Your task to perform on an android device: Go to Yahoo.com Image 0: 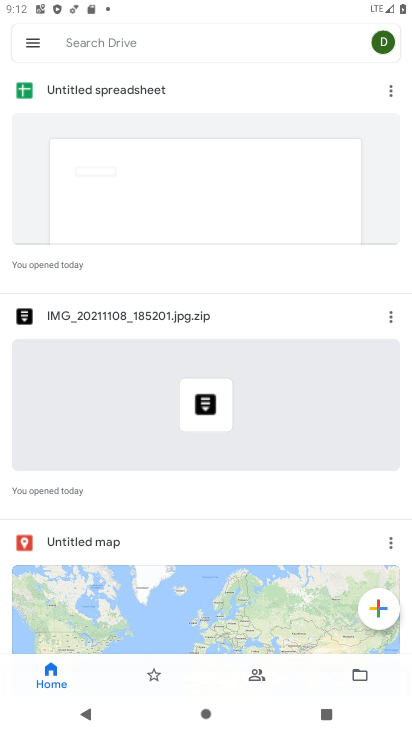
Step 0: press home button
Your task to perform on an android device: Go to Yahoo.com Image 1: 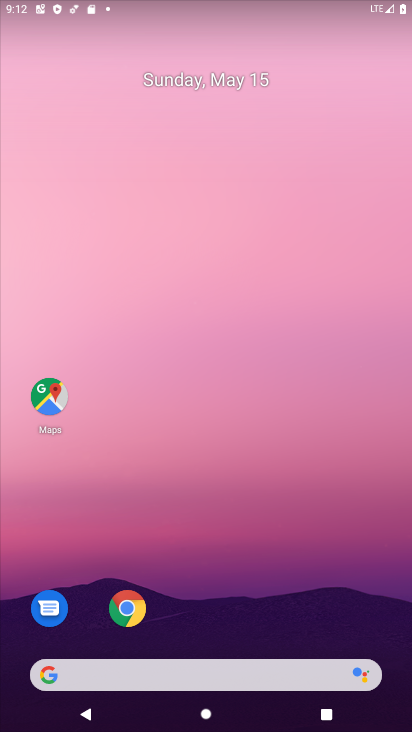
Step 1: drag from (221, 555) to (254, 50)
Your task to perform on an android device: Go to Yahoo.com Image 2: 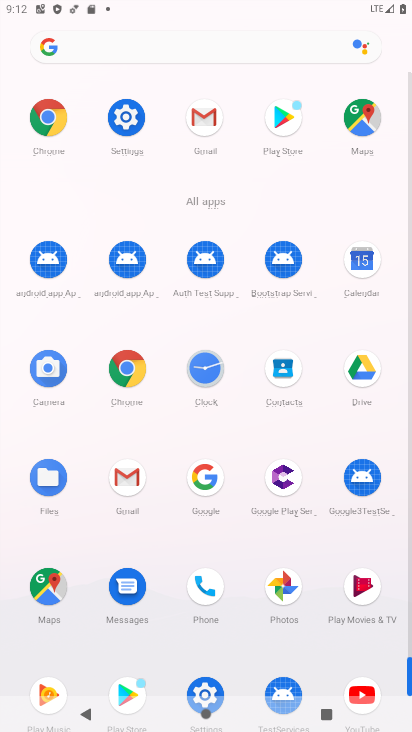
Step 2: click (53, 111)
Your task to perform on an android device: Go to Yahoo.com Image 3: 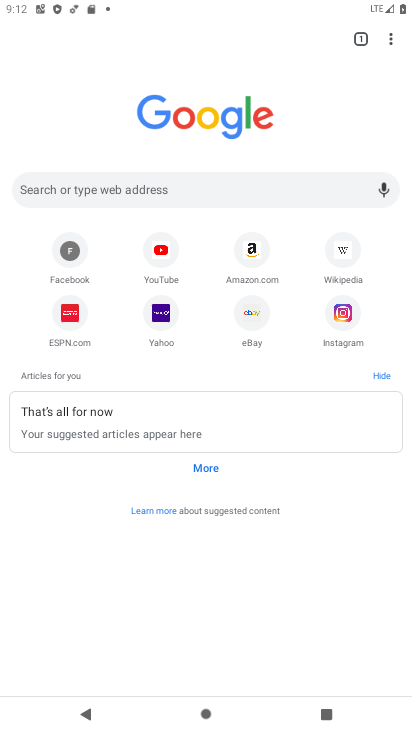
Step 3: click (161, 319)
Your task to perform on an android device: Go to Yahoo.com Image 4: 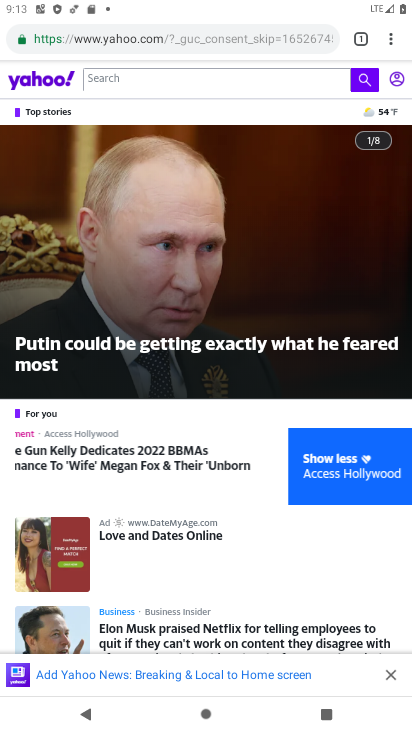
Step 4: task complete